Your task to perform on an android device: Open calendar and show me the first week of next month Image 0: 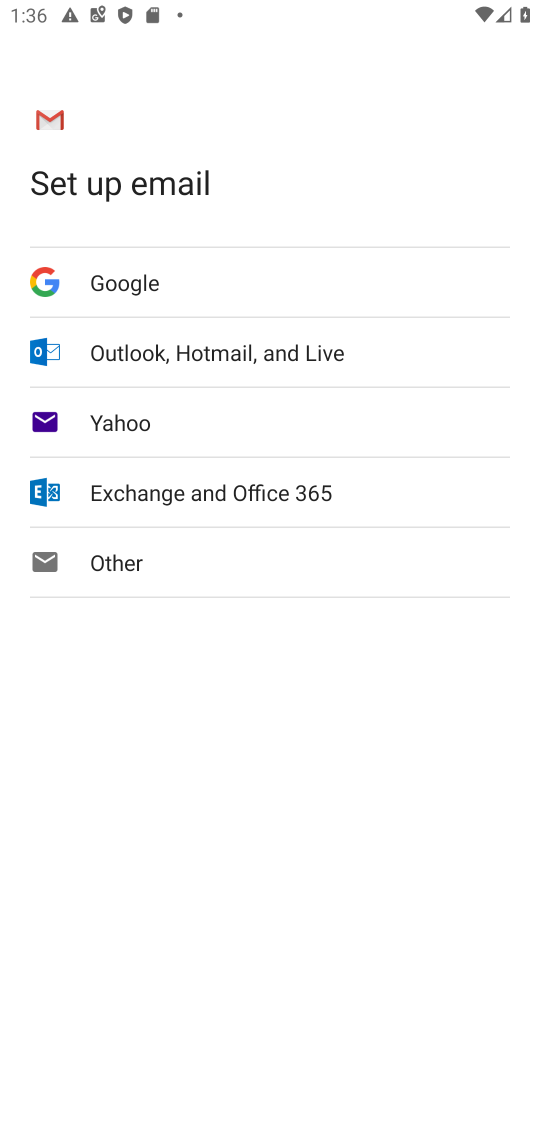
Step 0: press home button
Your task to perform on an android device: Open calendar and show me the first week of next month Image 1: 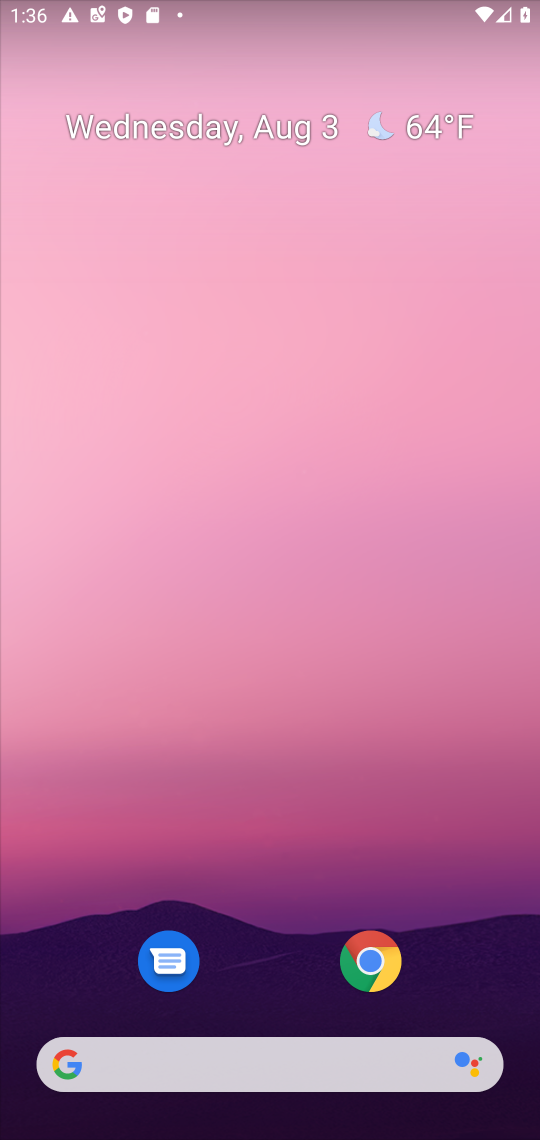
Step 1: drag from (264, 895) to (304, 65)
Your task to perform on an android device: Open calendar and show me the first week of next month Image 2: 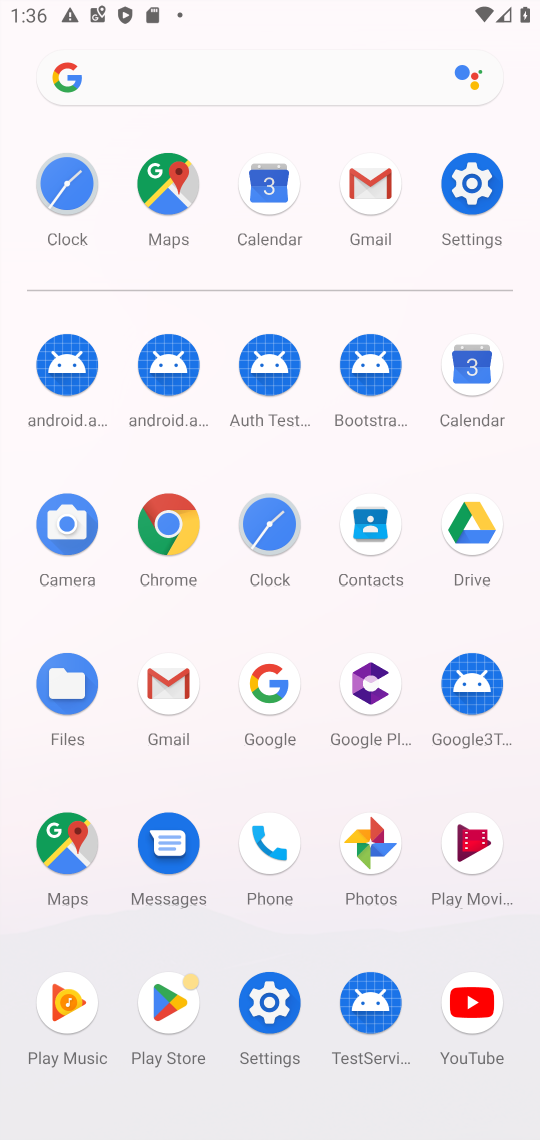
Step 2: click (460, 375)
Your task to perform on an android device: Open calendar and show me the first week of next month Image 3: 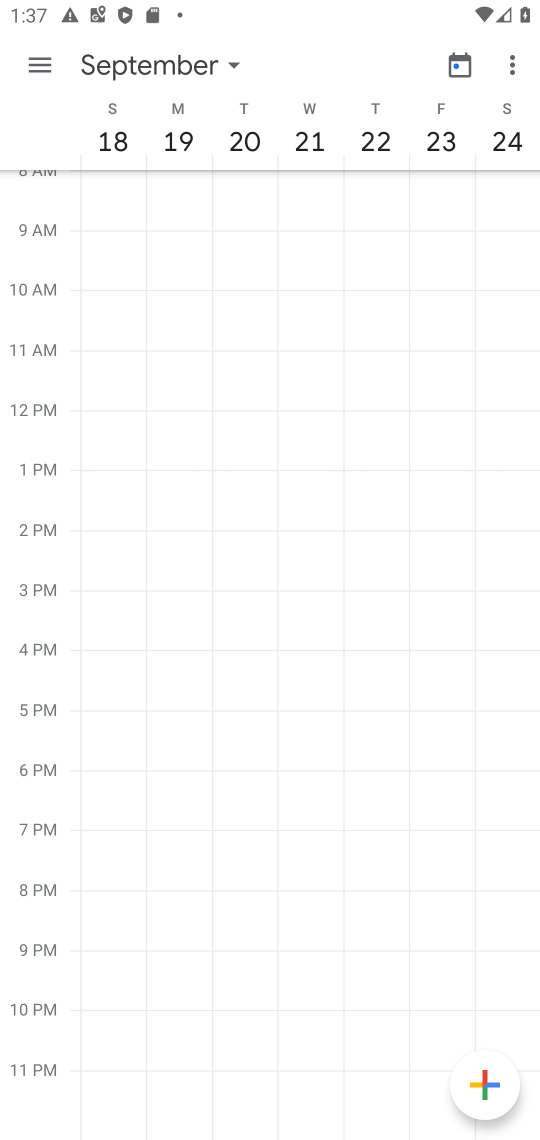
Step 3: click (469, 71)
Your task to perform on an android device: Open calendar and show me the first week of next month Image 4: 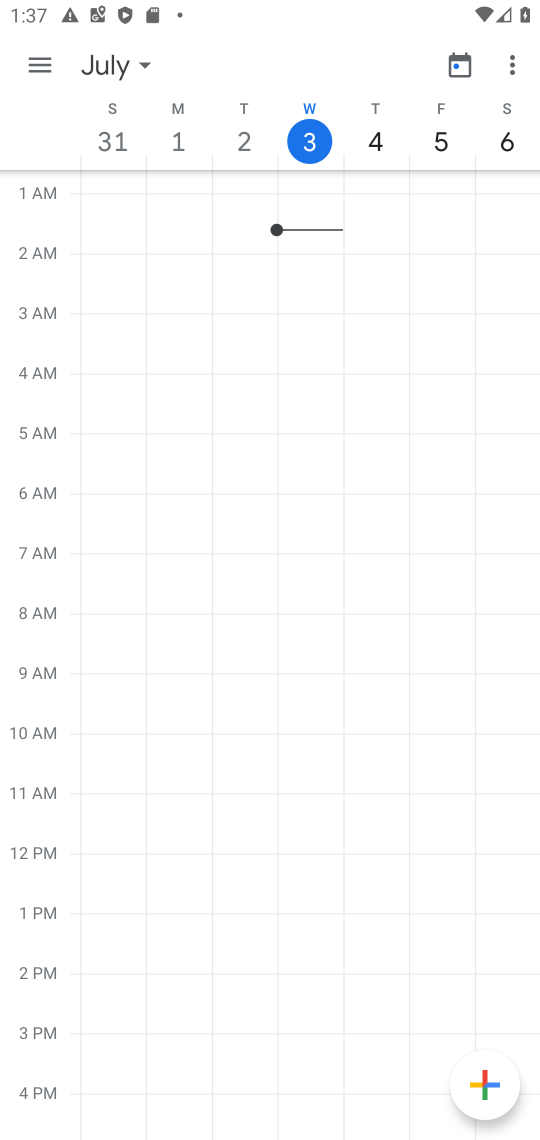
Step 4: click (462, 68)
Your task to perform on an android device: Open calendar and show me the first week of next month Image 5: 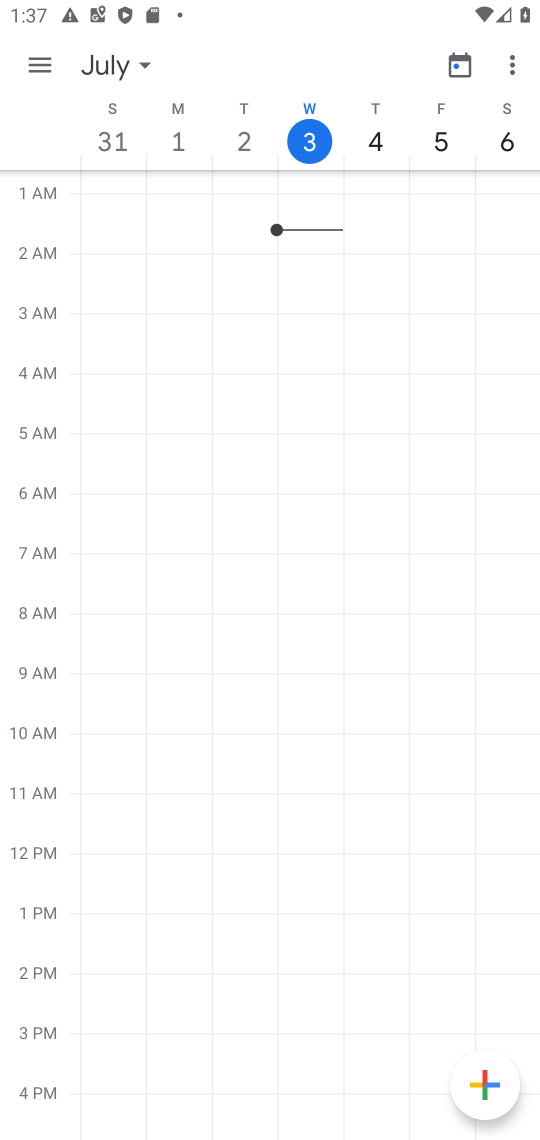
Step 5: click (145, 66)
Your task to perform on an android device: Open calendar and show me the first week of next month Image 6: 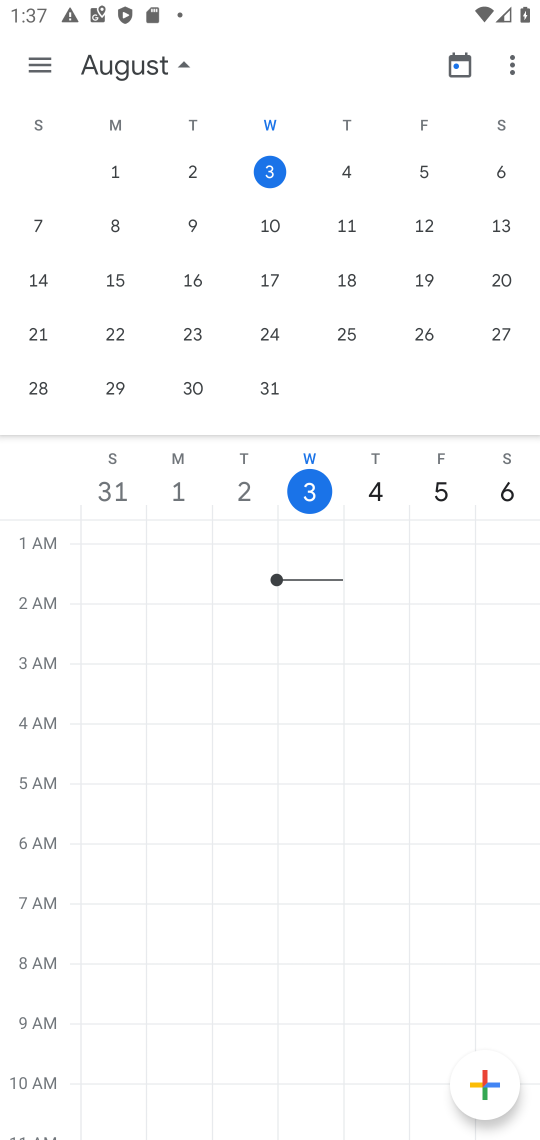
Step 6: drag from (347, 224) to (17, 167)
Your task to perform on an android device: Open calendar and show me the first week of next month Image 7: 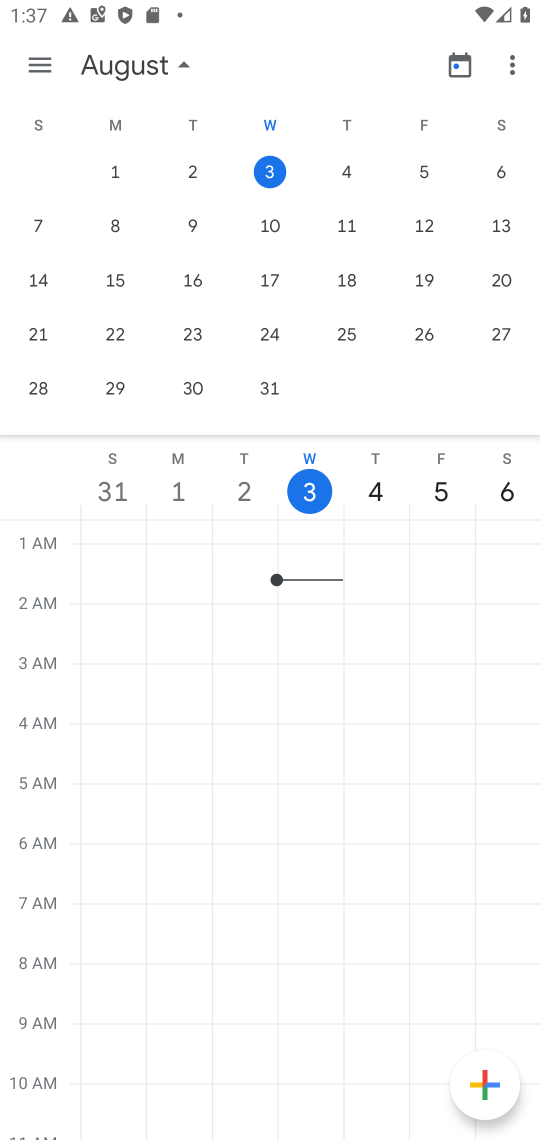
Step 7: drag from (458, 282) to (28, 285)
Your task to perform on an android device: Open calendar and show me the first week of next month Image 8: 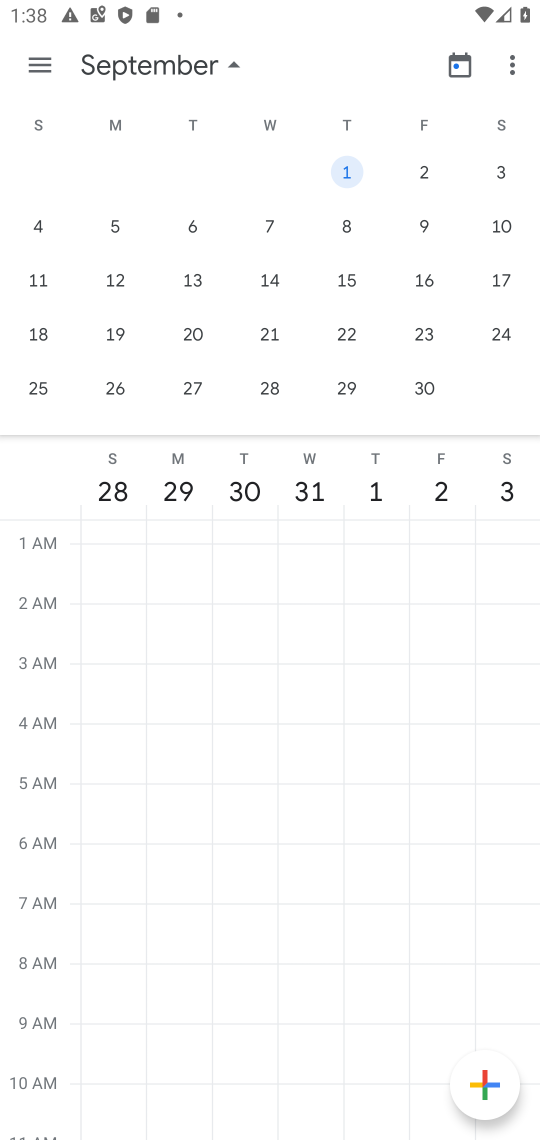
Step 8: click (42, 60)
Your task to perform on an android device: Open calendar and show me the first week of next month Image 9: 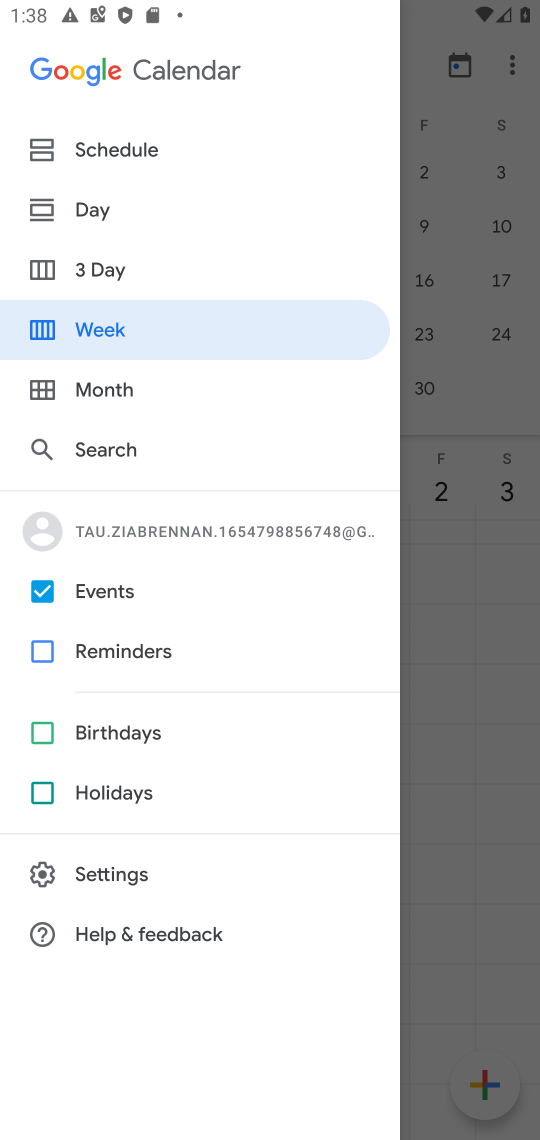
Step 9: click (66, 324)
Your task to perform on an android device: Open calendar and show me the first week of next month Image 10: 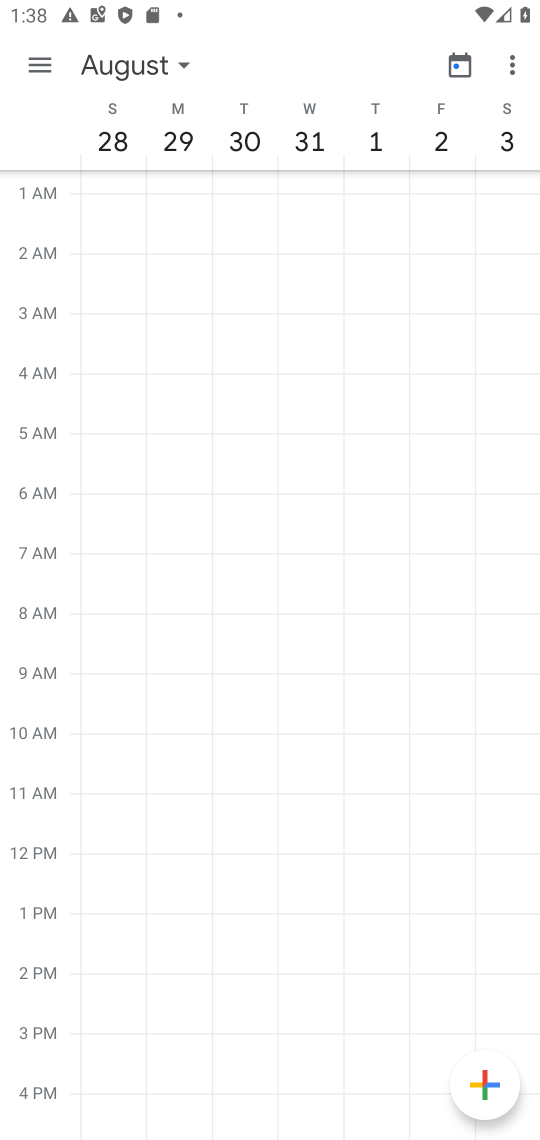
Step 10: task complete